Your task to perform on an android device: open a bookmark in the chrome app Image 0: 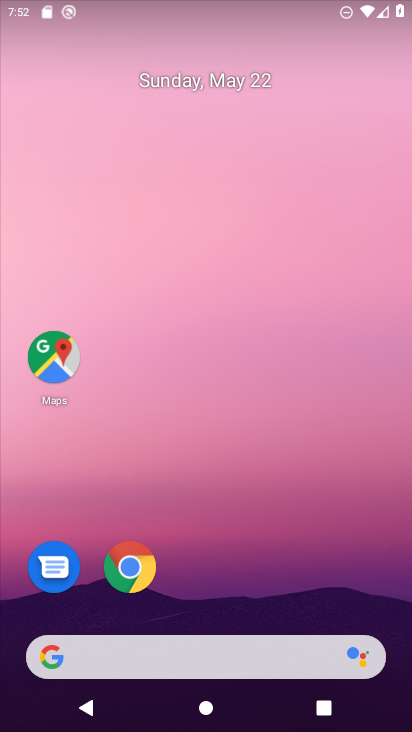
Step 0: click (140, 567)
Your task to perform on an android device: open a bookmark in the chrome app Image 1: 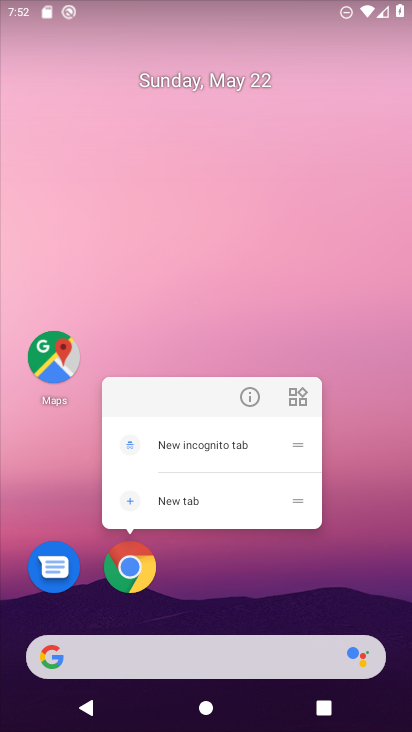
Step 1: click (116, 574)
Your task to perform on an android device: open a bookmark in the chrome app Image 2: 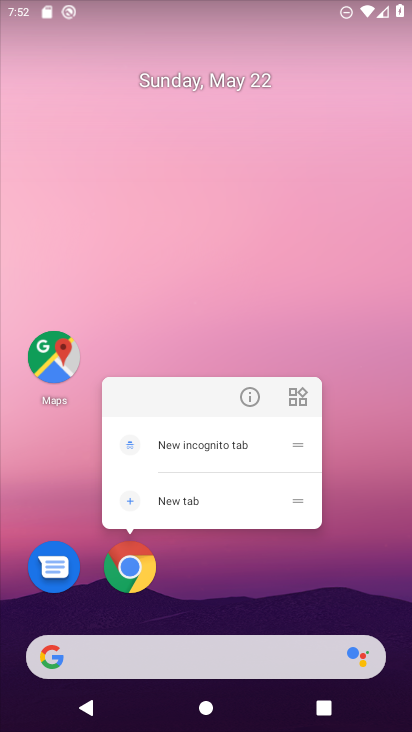
Step 2: click (127, 565)
Your task to perform on an android device: open a bookmark in the chrome app Image 3: 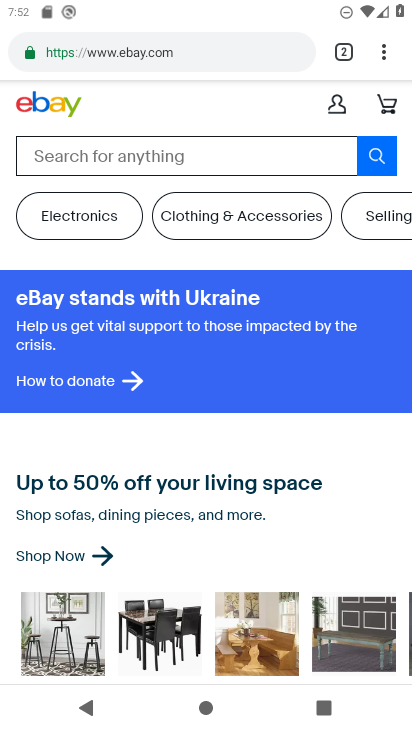
Step 3: drag from (381, 47) to (215, 199)
Your task to perform on an android device: open a bookmark in the chrome app Image 4: 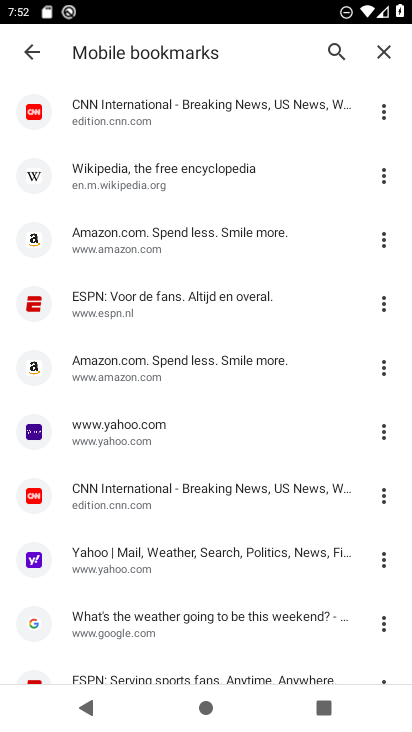
Step 4: click (126, 175)
Your task to perform on an android device: open a bookmark in the chrome app Image 5: 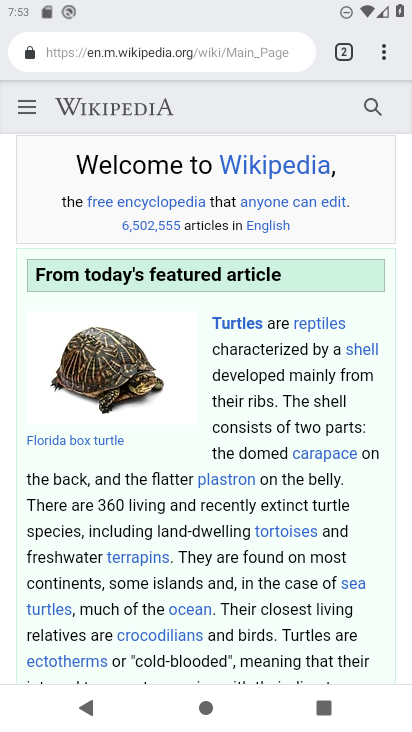
Step 5: task complete